Your task to perform on an android device: Clear the shopping cart on newegg.com. Search for "acer predator" on newegg.com, select the first entry, and add it to the cart. Image 0: 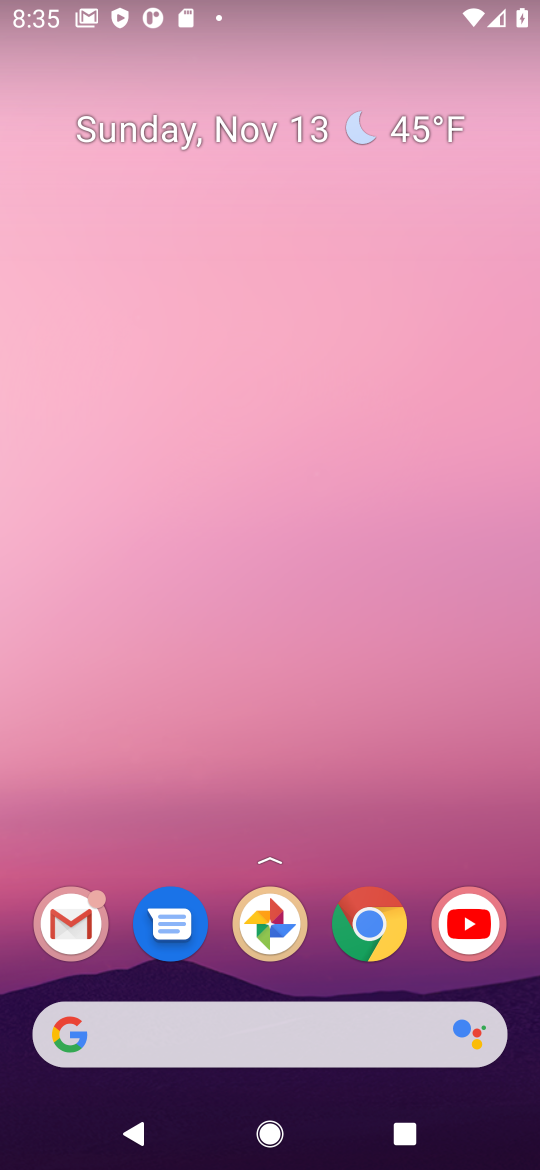
Step 0: click (372, 933)
Your task to perform on an android device: Clear the shopping cart on newegg.com. Search for "acer predator" on newegg.com, select the first entry, and add it to the cart. Image 1: 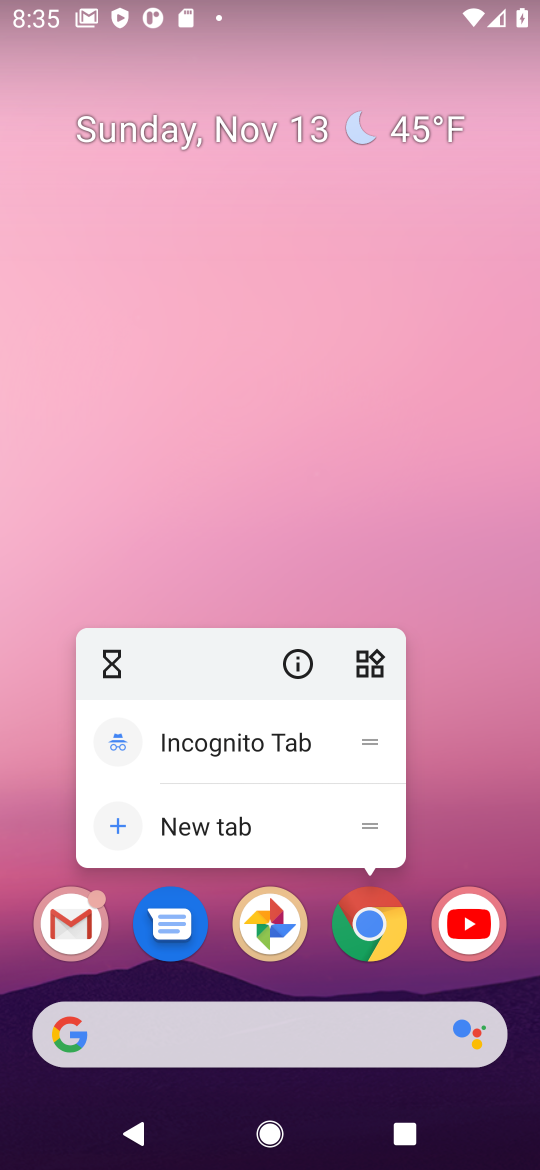
Step 1: click (372, 933)
Your task to perform on an android device: Clear the shopping cart on newegg.com. Search for "acer predator" on newegg.com, select the first entry, and add it to the cart. Image 2: 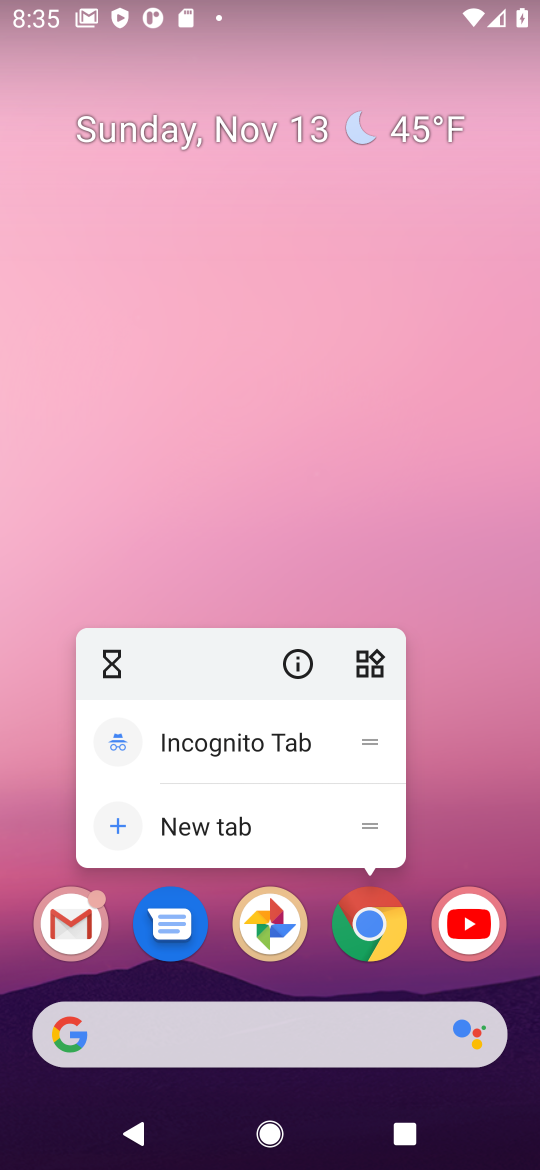
Step 2: click (372, 934)
Your task to perform on an android device: Clear the shopping cart on newegg.com. Search for "acer predator" on newegg.com, select the first entry, and add it to the cart. Image 3: 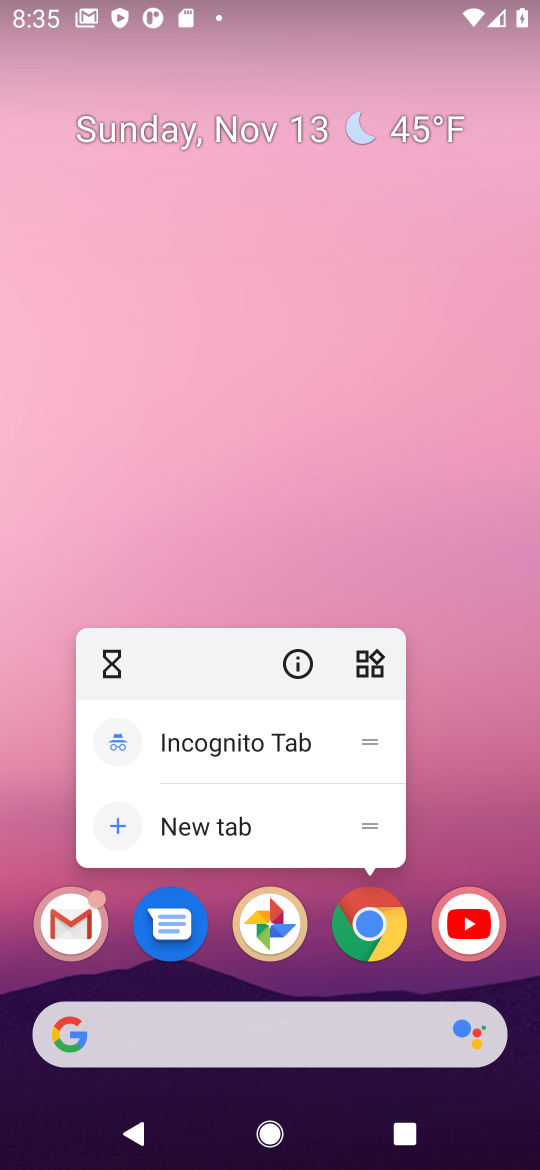
Step 3: click (372, 934)
Your task to perform on an android device: Clear the shopping cart on newegg.com. Search for "acer predator" on newegg.com, select the first entry, and add it to the cart. Image 4: 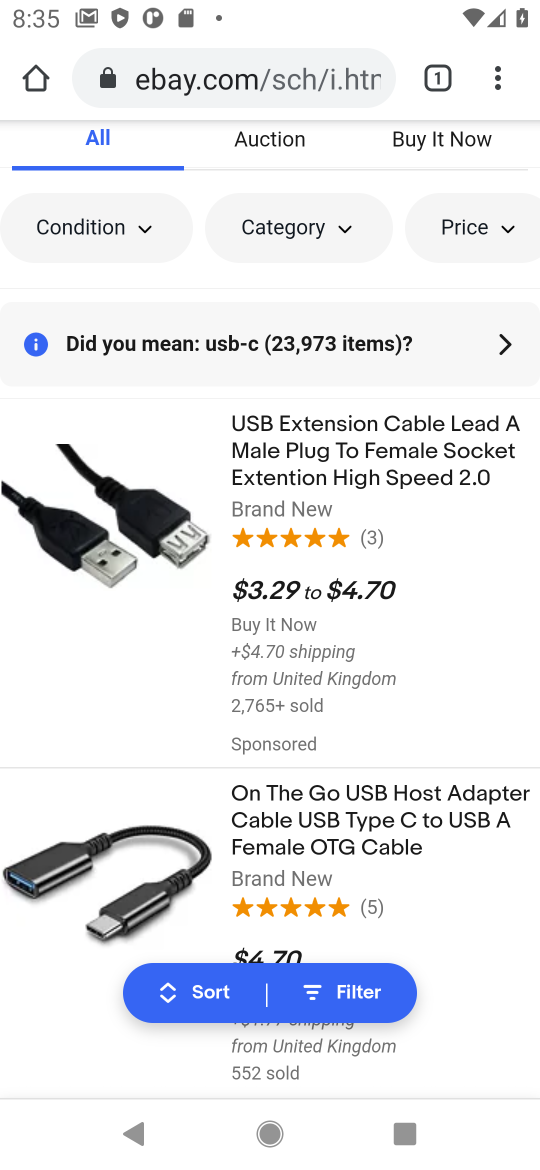
Step 4: drag from (329, 295) to (316, 873)
Your task to perform on an android device: Clear the shopping cart on newegg.com. Search for "acer predator" on newegg.com, select the first entry, and add it to the cart. Image 5: 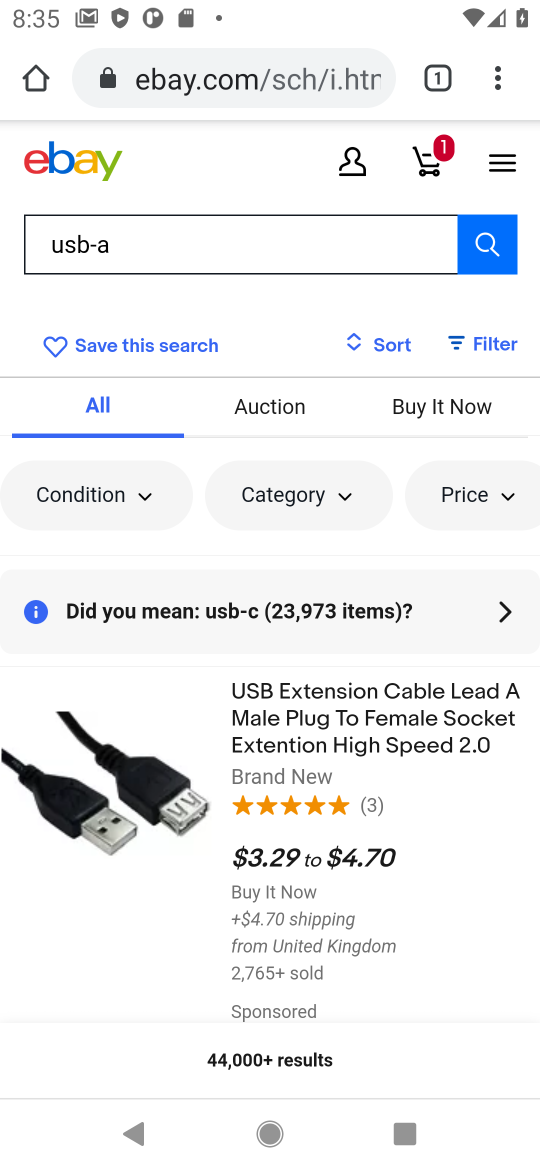
Step 5: click (184, 247)
Your task to perform on an android device: Clear the shopping cart on newegg.com. Search for "acer predator" on newegg.com, select the first entry, and add it to the cart. Image 6: 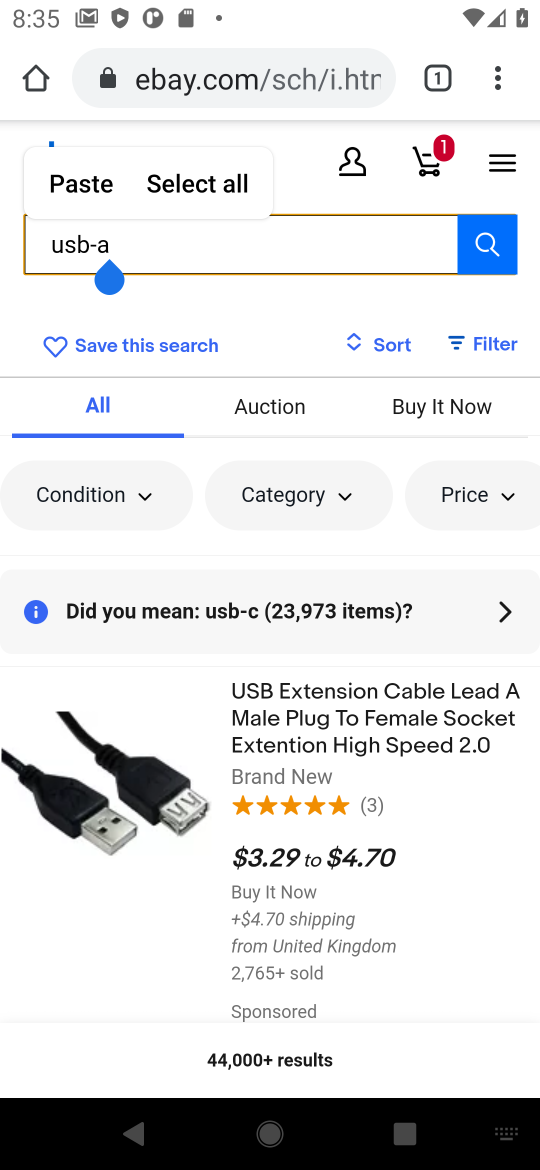
Step 6: click (251, 76)
Your task to perform on an android device: Clear the shopping cart on newegg.com. Search for "acer predator" on newegg.com, select the first entry, and add it to the cart. Image 7: 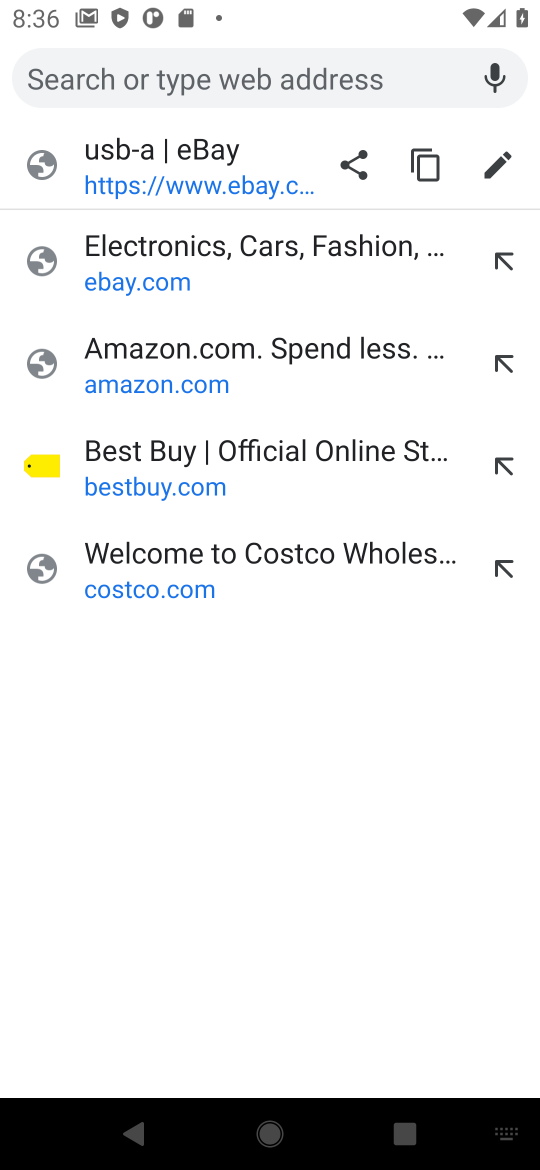
Step 7: type " newegg.com"
Your task to perform on an android device: Clear the shopping cart on newegg.com. Search for "acer predator" on newegg.com, select the first entry, and add it to the cart. Image 8: 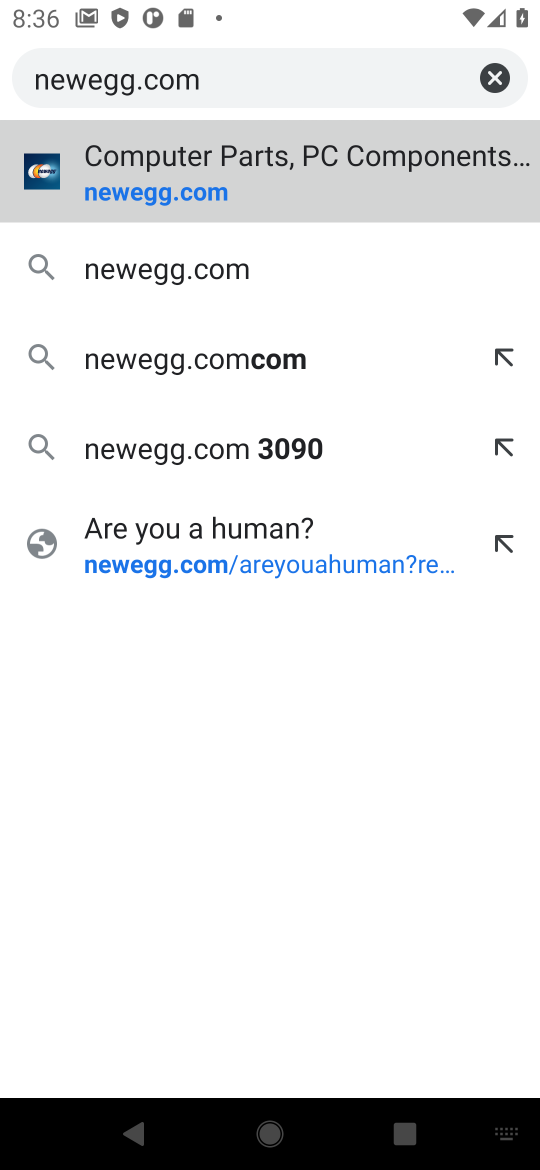
Step 8: press enter
Your task to perform on an android device: Clear the shopping cart on newegg.com. Search for "acer predator" on newegg.com, select the first entry, and add it to the cart. Image 9: 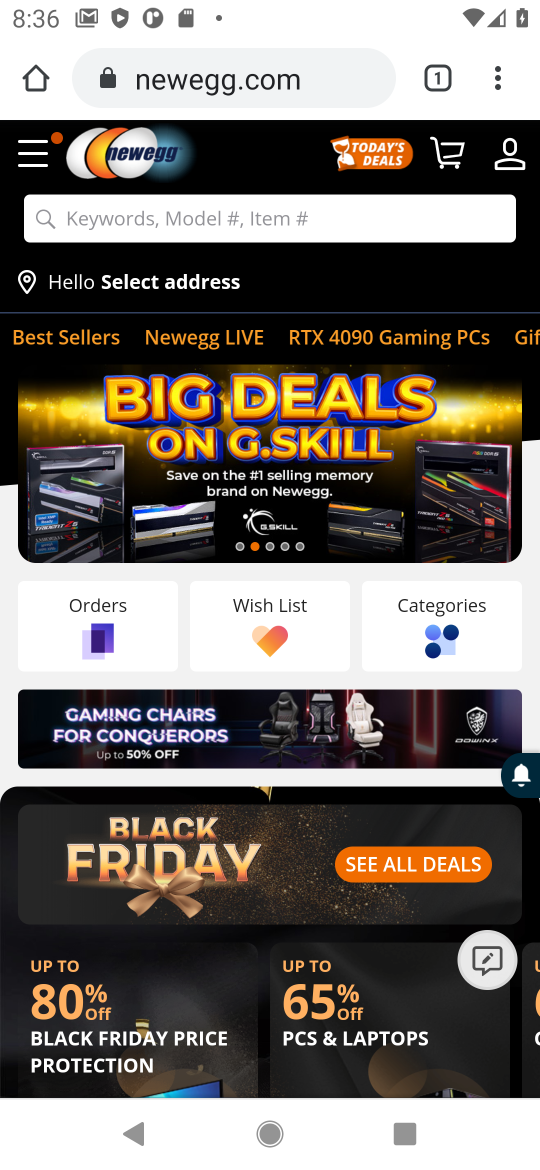
Step 9: click (150, 212)
Your task to perform on an android device: Clear the shopping cart on newegg.com. Search for "acer predator" on newegg.com, select the first entry, and add it to the cart. Image 10: 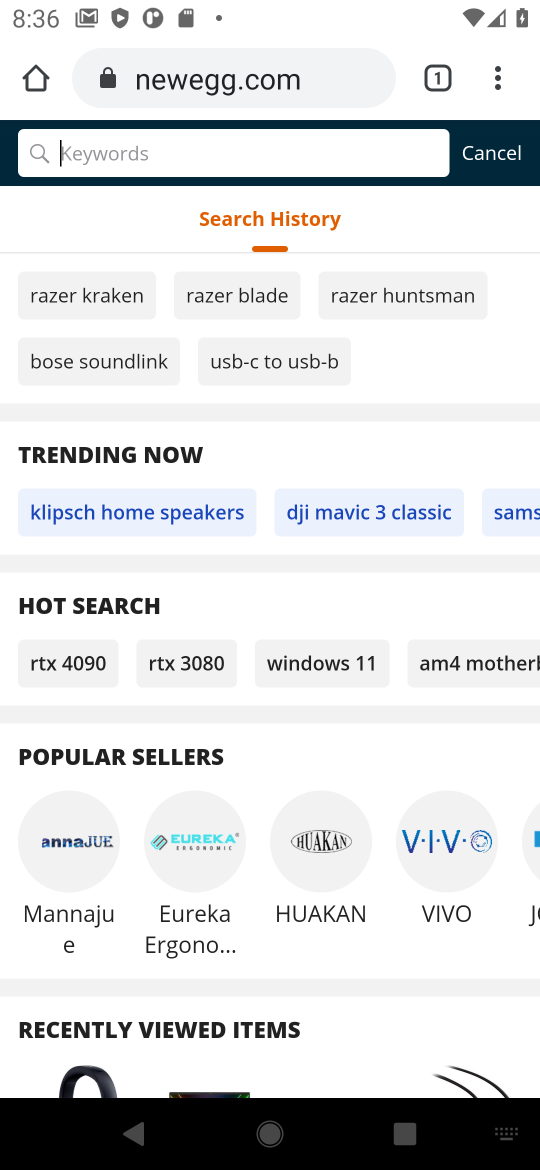
Step 10: type "acer predator"
Your task to perform on an android device: Clear the shopping cart on newegg.com. Search for "acer predator" on newegg.com, select the first entry, and add it to the cart. Image 11: 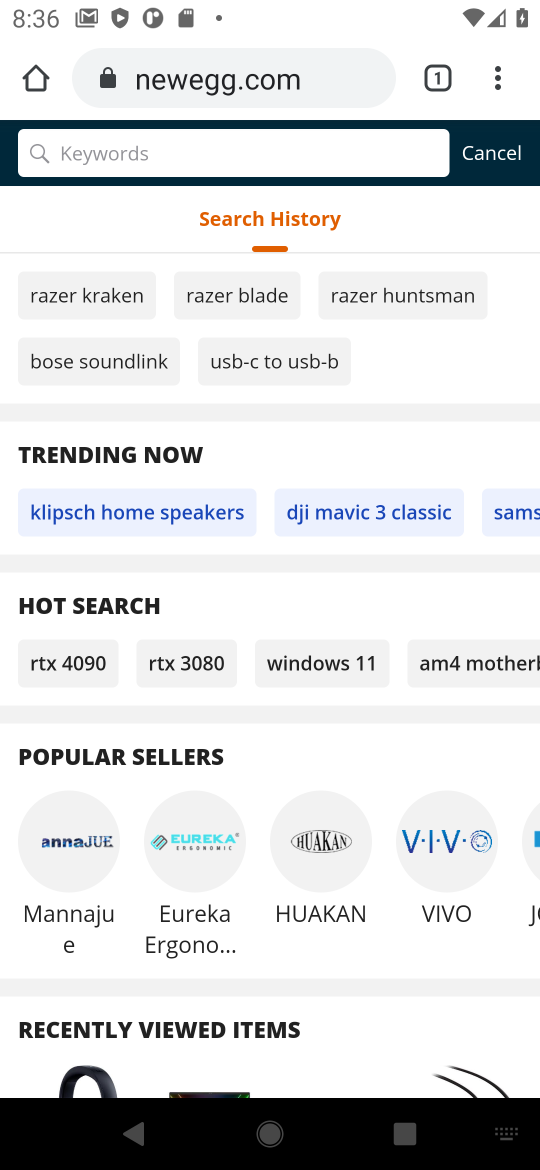
Step 11: press enter
Your task to perform on an android device: Clear the shopping cart on newegg.com. Search for "acer predator" on newegg.com, select the first entry, and add it to the cart. Image 12: 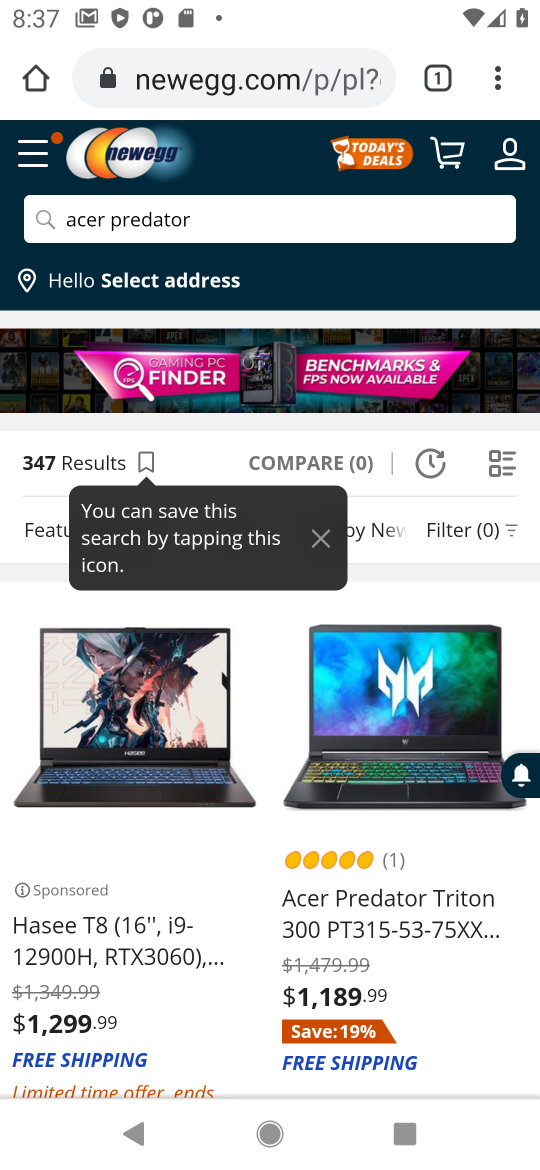
Step 12: click (47, 904)
Your task to perform on an android device: Clear the shopping cart on newegg.com. Search for "acer predator" on newegg.com, select the first entry, and add it to the cart. Image 13: 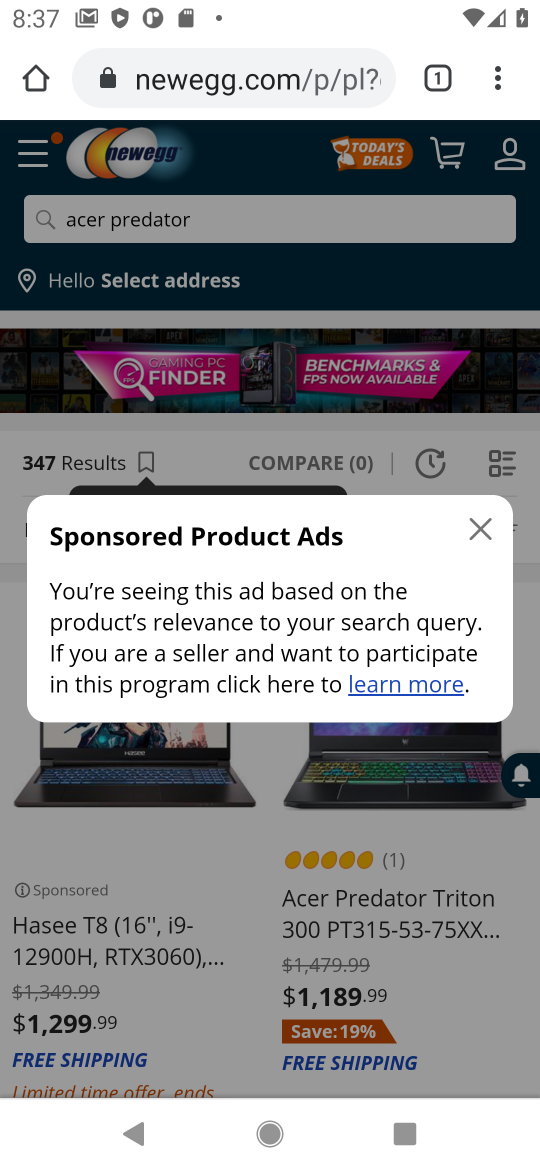
Step 13: click (80, 931)
Your task to perform on an android device: Clear the shopping cart on newegg.com. Search for "acer predator" on newegg.com, select the first entry, and add it to the cart. Image 14: 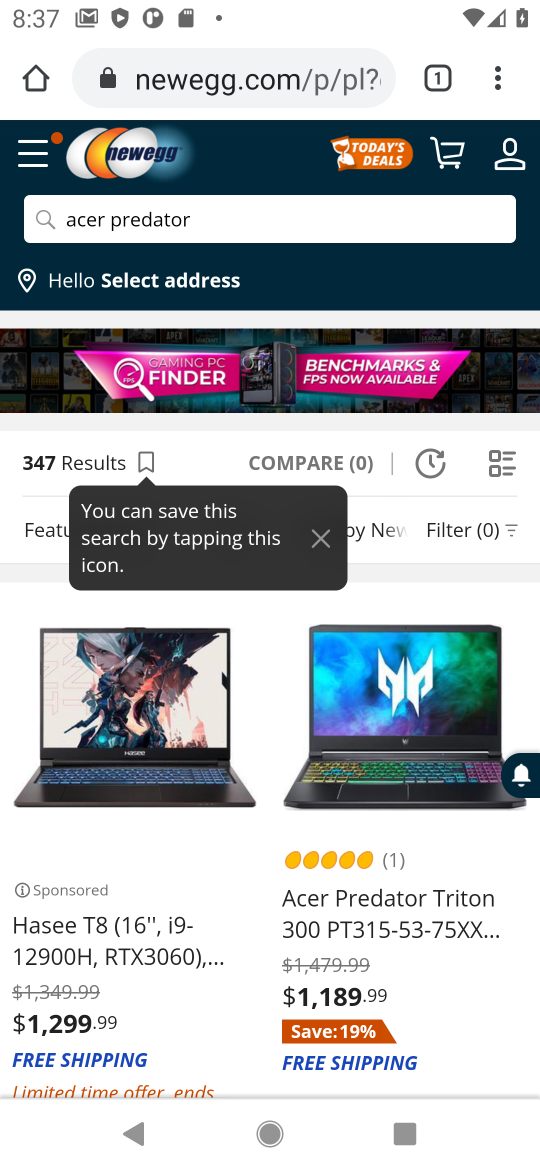
Step 14: click (82, 931)
Your task to perform on an android device: Clear the shopping cart on newegg.com. Search for "acer predator" on newegg.com, select the first entry, and add it to the cart. Image 15: 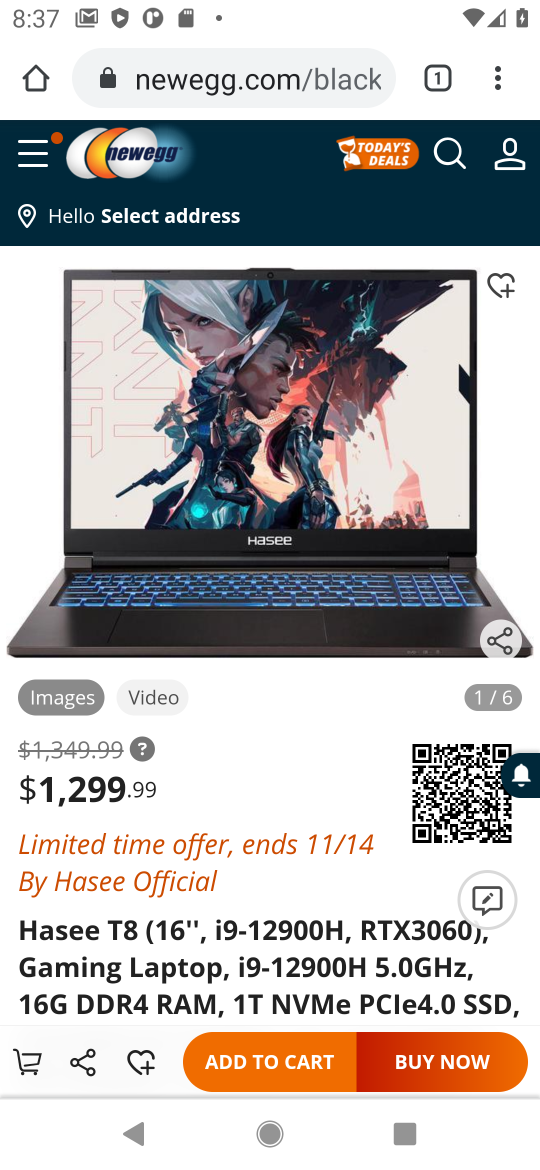
Step 15: task complete